Your task to perform on an android device: open app "Truecaller" (install if not already installed) Image 0: 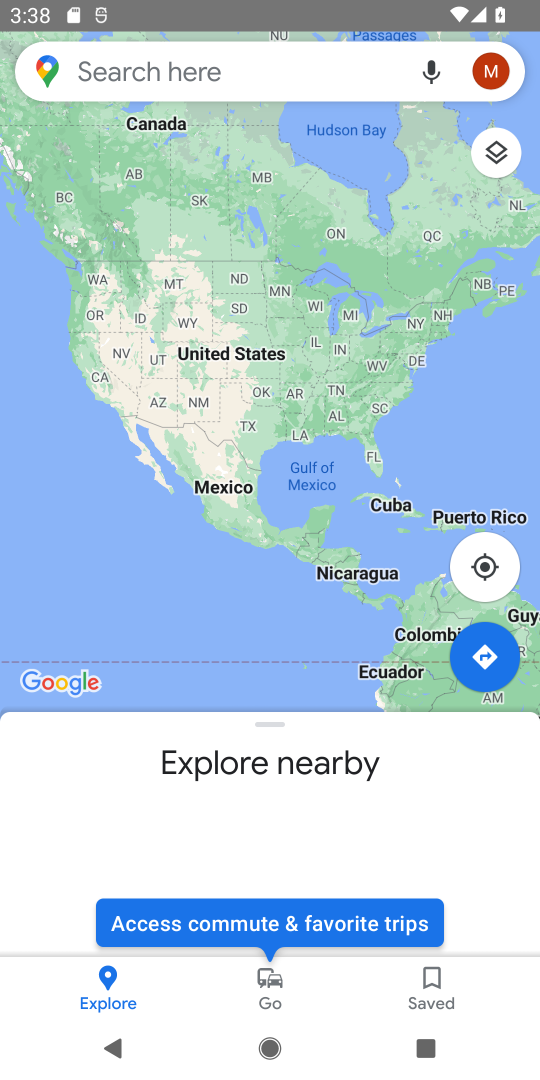
Step 0: press home button
Your task to perform on an android device: open app "Truecaller" (install if not already installed) Image 1: 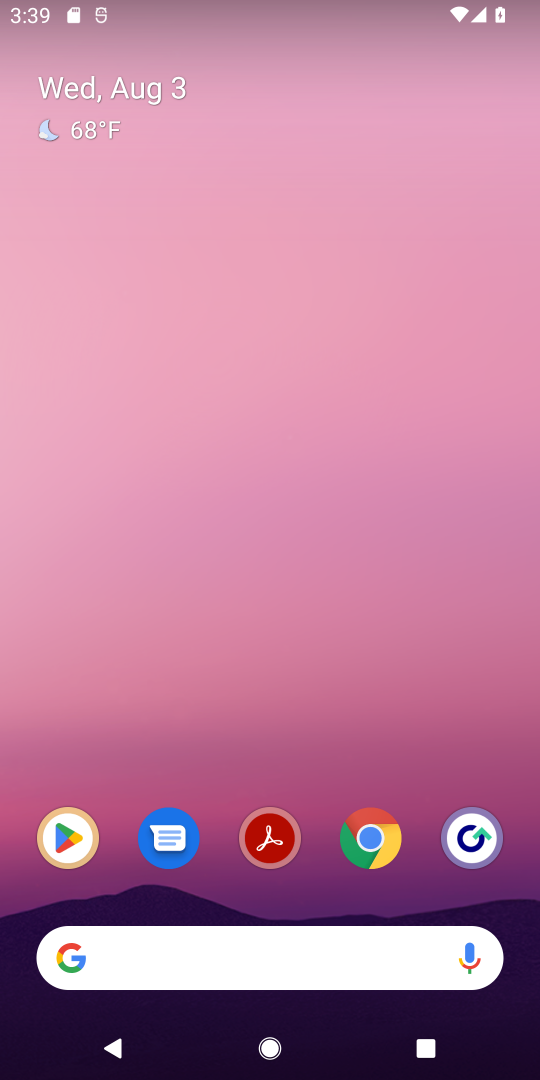
Step 1: click (72, 840)
Your task to perform on an android device: open app "Truecaller" (install if not already installed) Image 2: 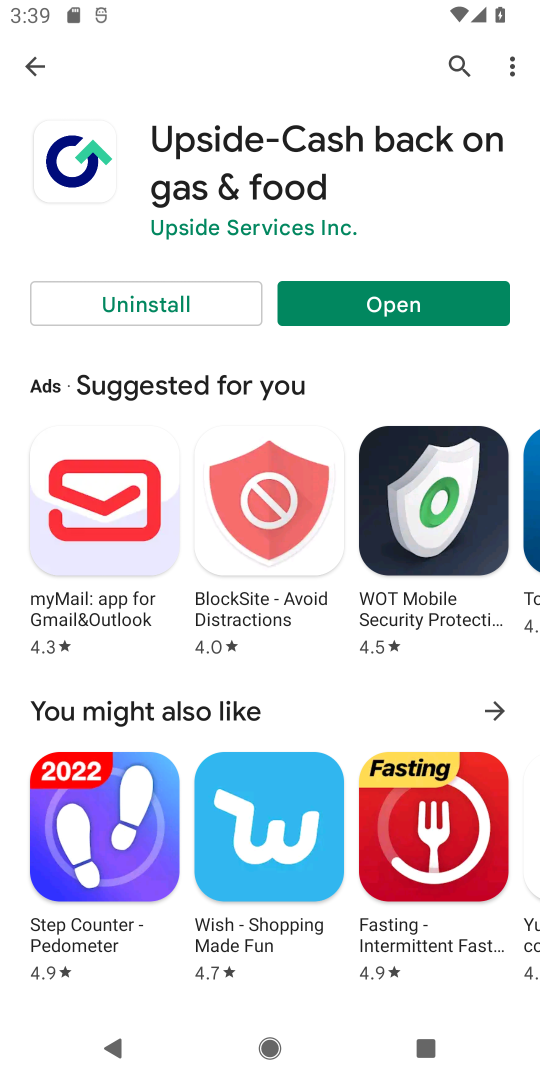
Step 2: click (464, 56)
Your task to perform on an android device: open app "Truecaller" (install if not already installed) Image 3: 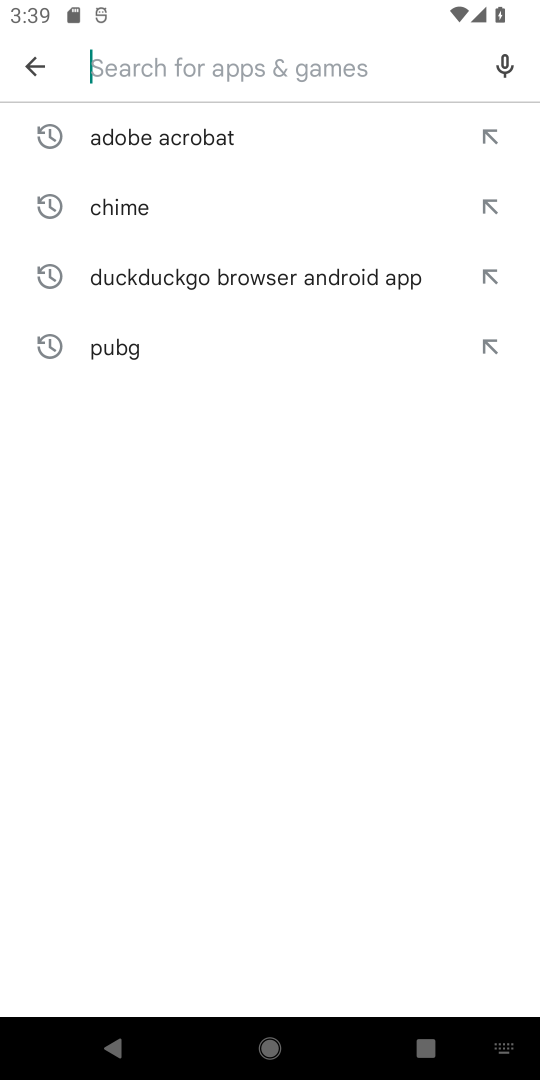
Step 3: type "truecaller"
Your task to perform on an android device: open app "Truecaller" (install if not already installed) Image 4: 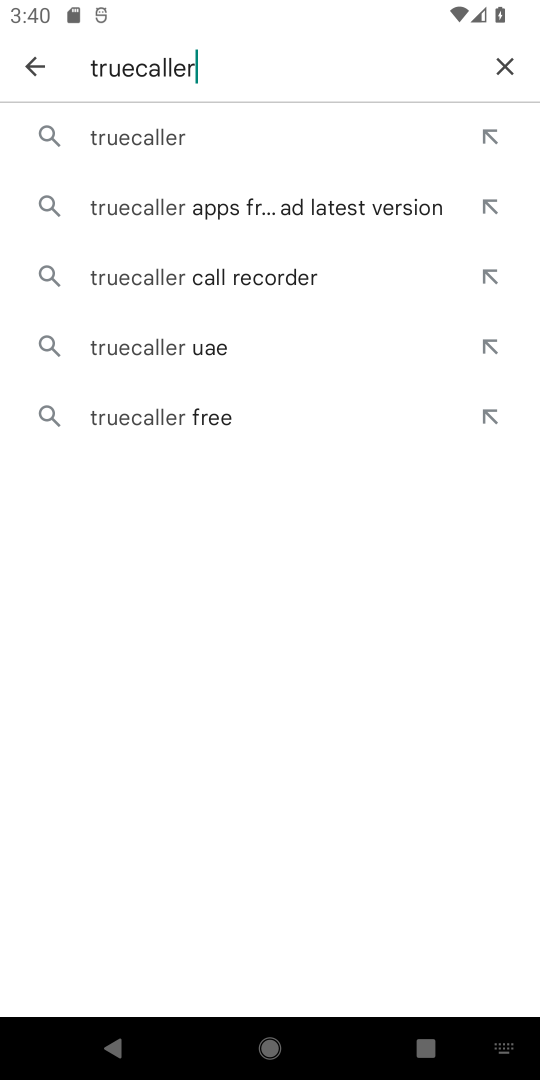
Step 4: click (193, 142)
Your task to perform on an android device: open app "Truecaller" (install if not already installed) Image 5: 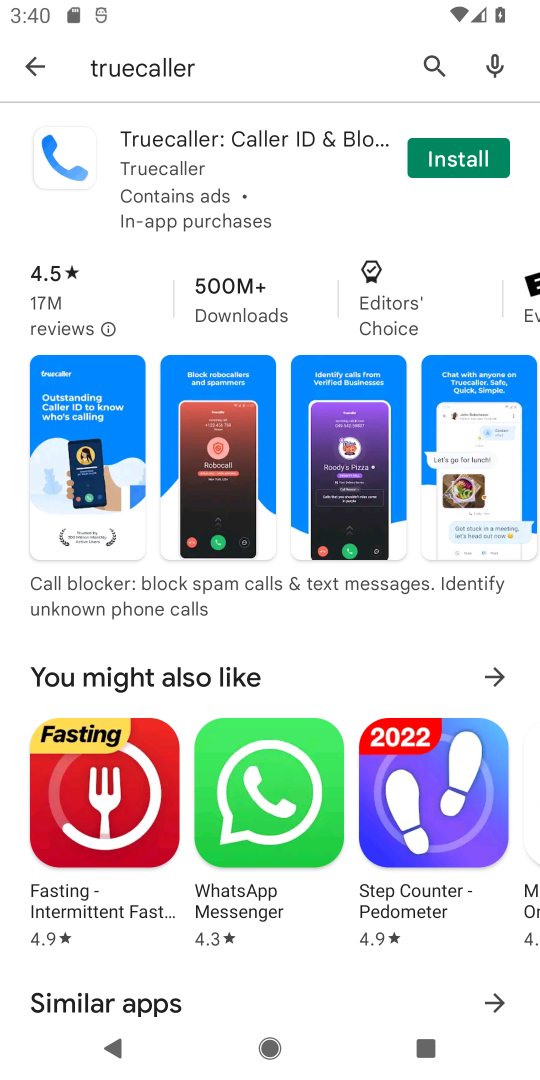
Step 5: click (455, 156)
Your task to perform on an android device: open app "Truecaller" (install if not already installed) Image 6: 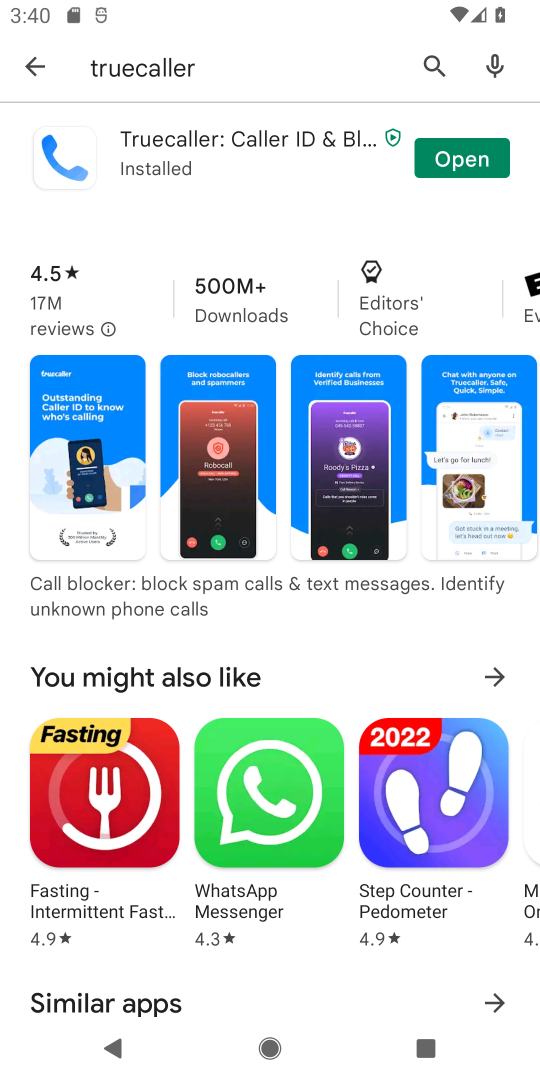
Step 6: click (469, 152)
Your task to perform on an android device: open app "Truecaller" (install if not already installed) Image 7: 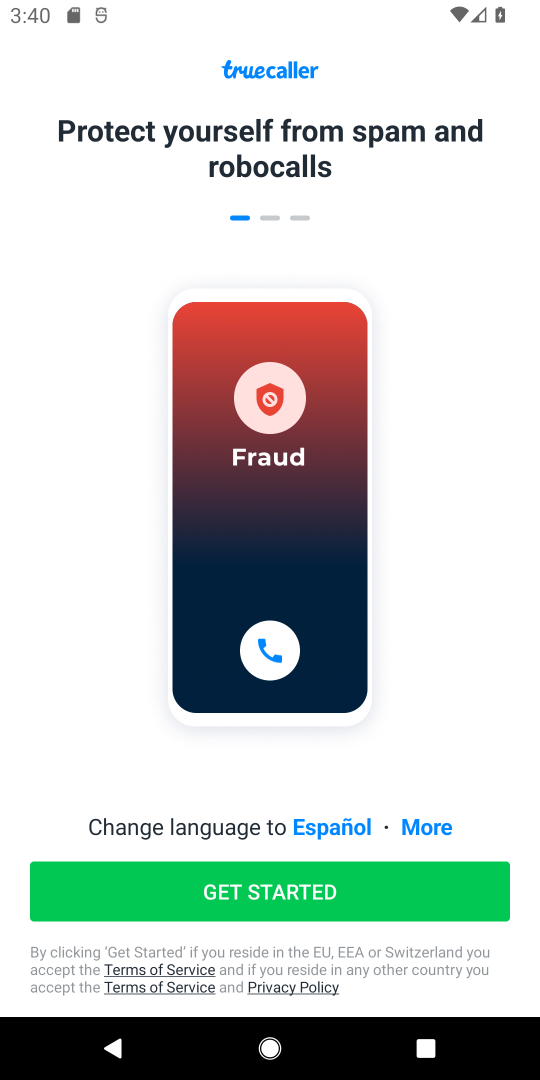
Step 7: task complete